Your task to perform on an android device: Show the shopping cart on target.com. Search for "asus rog" on target.com, select the first entry, add it to the cart, then select checkout. Image 0: 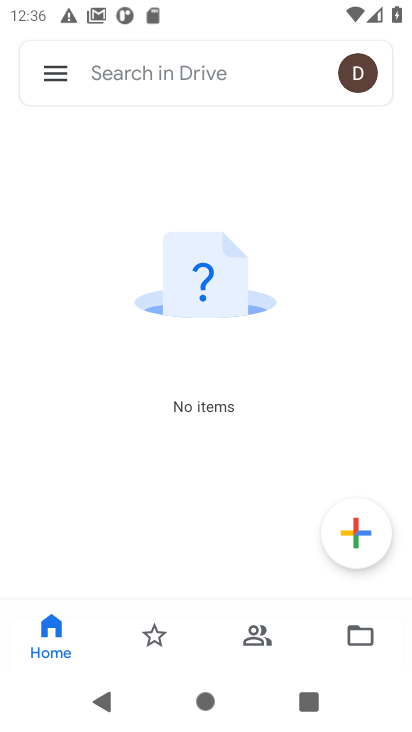
Step 0: press home button
Your task to perform on an android device: Show the shopping cart on target.com. Search for "asus rog" on target.com, select the first entry, add it to the cart, then select checkout. Image 1: 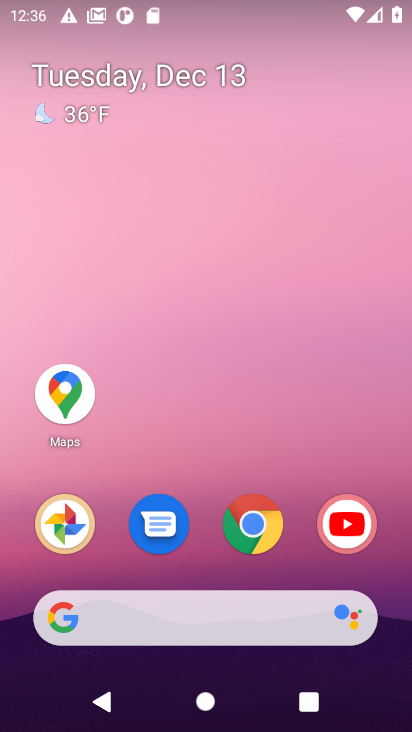
Step 1: click (262, 523)
Your task to perform on an android device: Show the shopping cart on target.com. Search for "asus rog" on target.com, select the first entry, add it to the cart, then select checkout. Image 2: 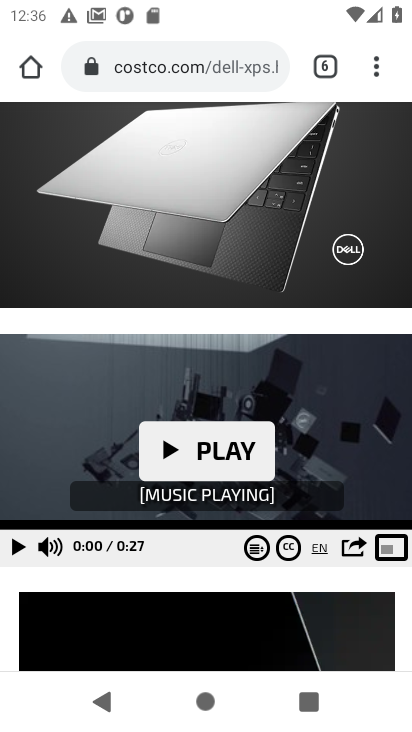
Step 2: click (124, 68)
Your task to perform on an android device: Show the shopping cart on target.com. Search for "asus rog" on target.com, select the first entry, add it to the cart, then select checkout. Image 3: 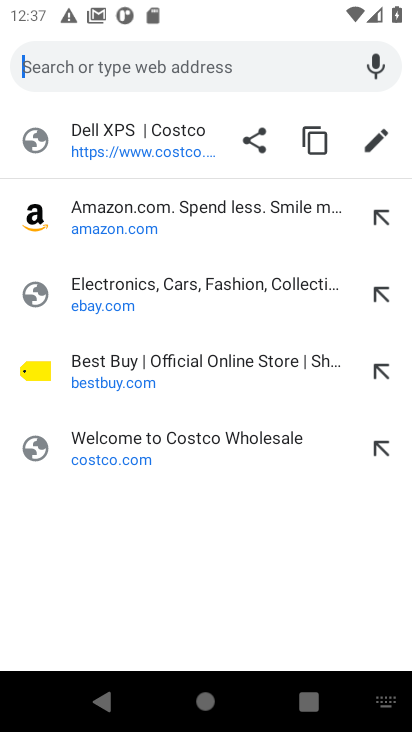
Step 3: type "target.com"
Your task to perform on an android device: Show the shopping cart on target.com. Search for "asus rog" on target.com, select the first entry, add it to the cart, then select checkout. Image 4: 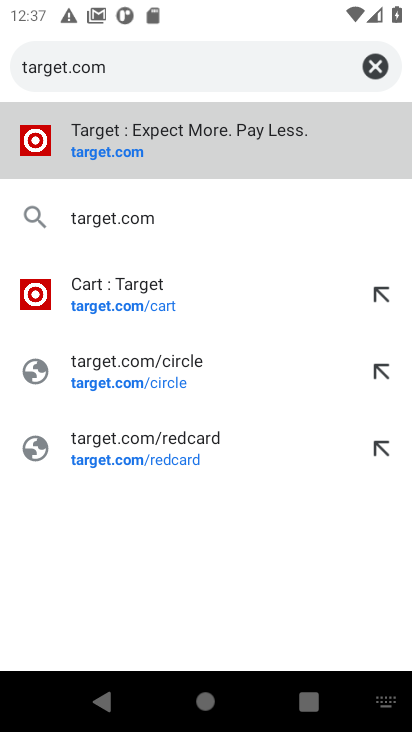
Step 4: click (106, 140)
Your task to perform on an android device: Show the shopping cart on target.com. Search for "asus rog" on target.com, select the first entry, add it to the cart, then select checkout. Image 5: 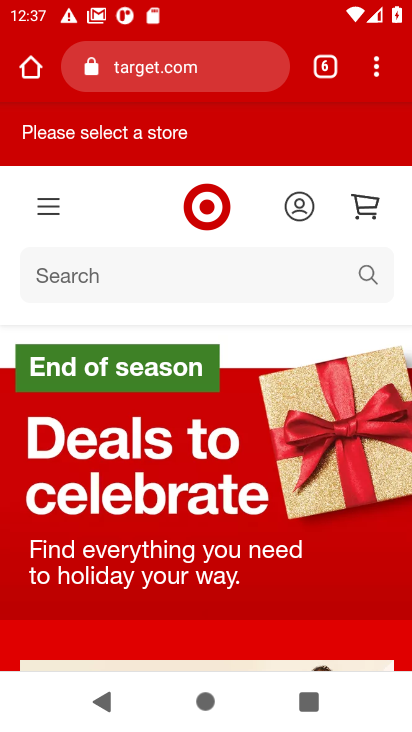
Step 5: click (364, 206)
Your task to perform on an android device: Show the shopping cart on target.com. Search for "asus rog" on target.com, select the first entry, add it to the cart, then select checkout. Image 6: 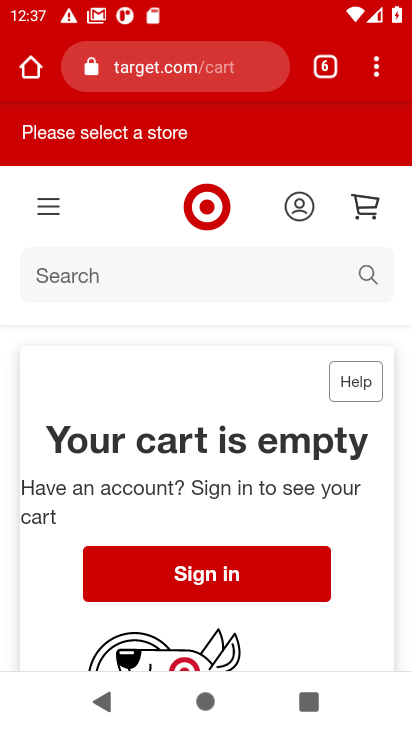
Step 6: click (46, 271)
Your task to perform on an android device: Show the shopping cart on target.com. Search for "asus rog" on target.com, select the first entry, add it to the cart, then select checkout. Image 7: 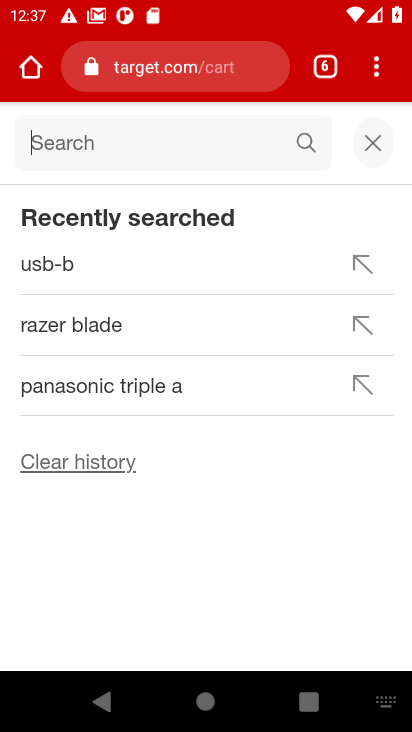
Step 7: type "asus rog"
Your task to perform on an android device: Show the shopping cart on target.com. Search for "asus rog" on target.com, select the first entry, add it to the cart, then select checkout. Image 8: 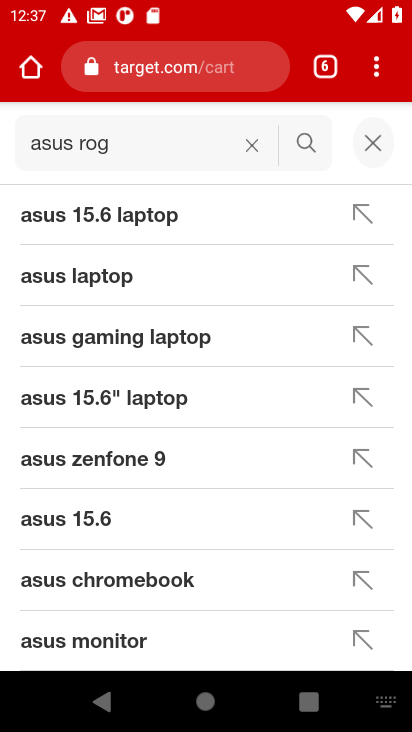
Step 8: click (307, 143)
Your task to perform on an android device: Show the shopping cart on target.com. Search for "asus rog" on target.com, select the first entry, add it to the cart, then select checkout. Image 9: 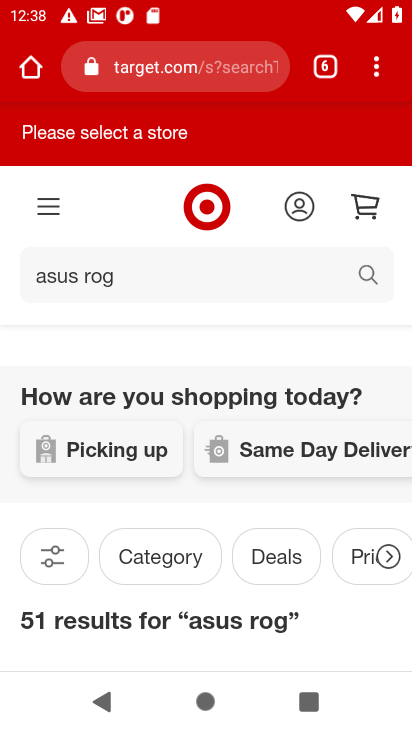
Step 9: drag from (169, 494) to (160, 213)
Your task to perform on an android device: Show the shopping cart on target.com. Search for "asus rog" on target.com, select the first entry, add it to the cart, then select checkout. Image 10: 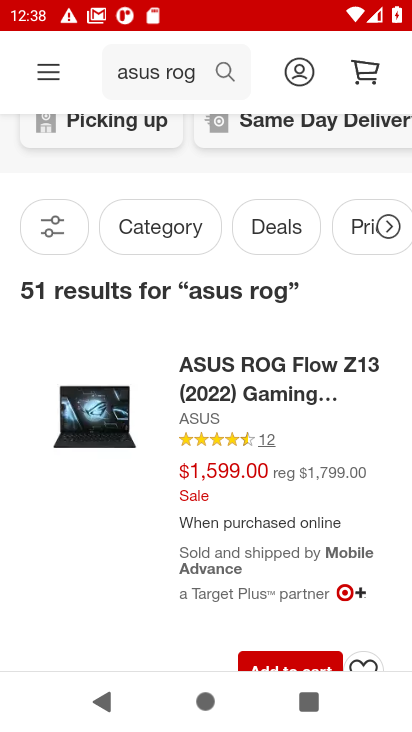
Step 10: drag from (156, 440) to (153, 271)
Your task to perform on an android device: Show the shopping cart on target.com. Search for "asus rog" on target.com, select the first entry, add it to the cart, then select checkout. Image 11: 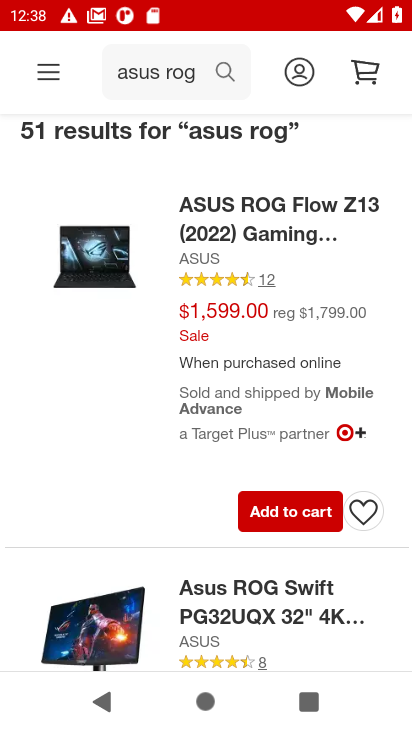
Step 11: click (289, 513)
Your task to perform on an android device: Show the shopping cart on target.com. Search for "asus rog" on target.com, select the first entry, add it to the cart, then select checkout. Image 12: 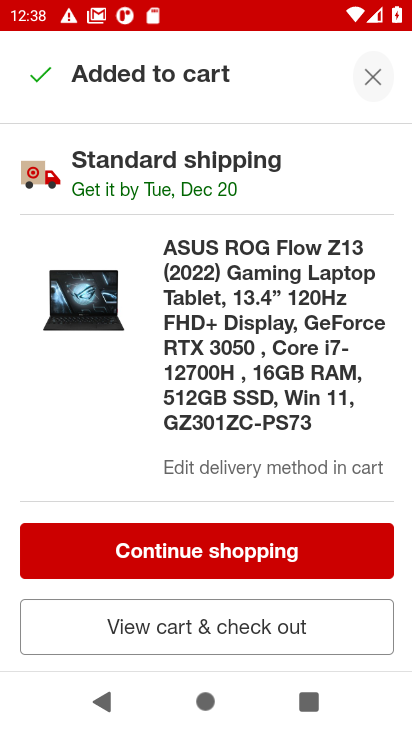
Step 12: click (174, 623)
Your task to perform on an android device: Show the shopping cart on target.com. Search for "asus rog" on target.com, select the first entry, add it to the cart, then select checkout. Image 13: 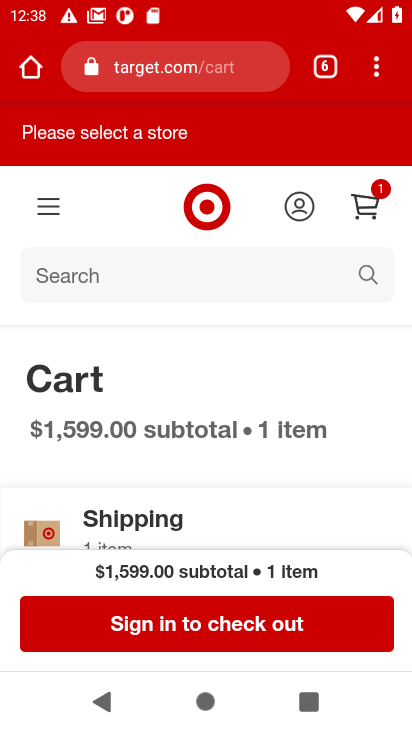
Step 13: click (193, 632)
Your task to perform on an android device: Show the shopping cart on target.com. Search for "asus rog" on target.com, select the first entry, add it to the cart, then select checkout. Image 14: 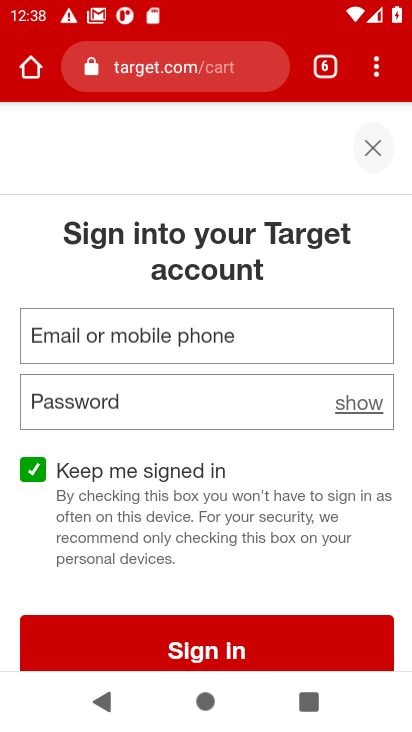
Step 14: task complete